Your task to perform on an android device: turn off priority inbox in the gmail app Image 0: 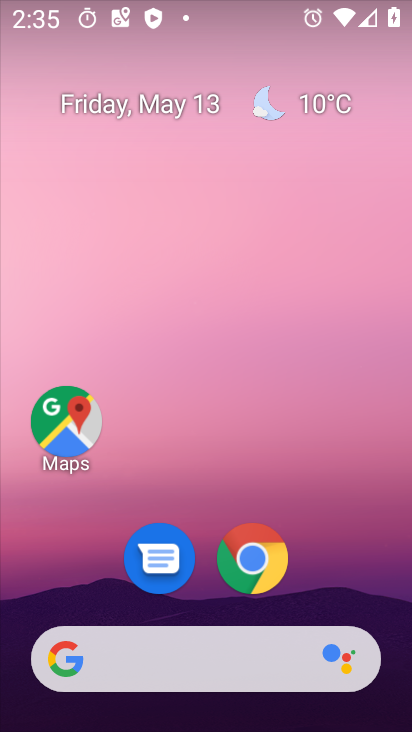
Step 0: drag from (208, 599) to (192, 227)
Your task to perform on an android device: turn off priority inbox in the gmail app Image 1: 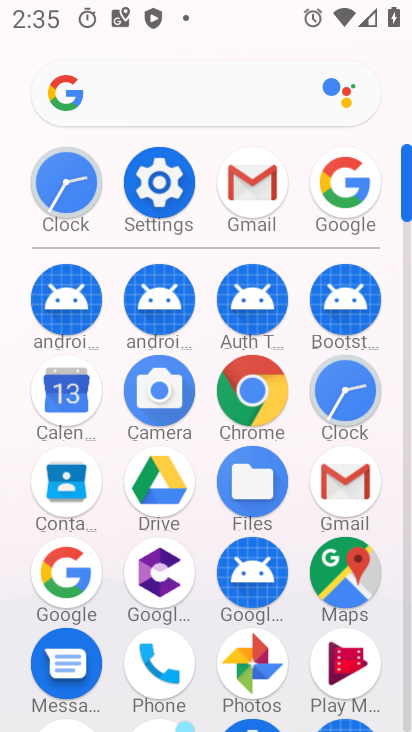
Step 1: click (251, 207)
Your task to perform on an android device: turn off priority inbox in the gmail app Image 2: 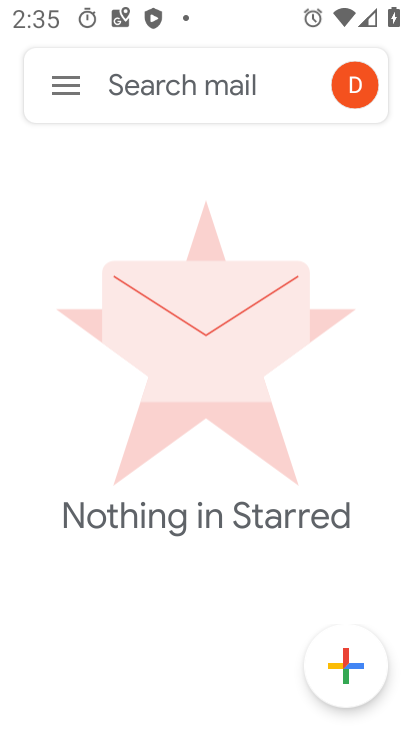
Step 2: click (69, 98)
Your task to perform on an android device: turn off priority inbox in the gmail app Image 3: 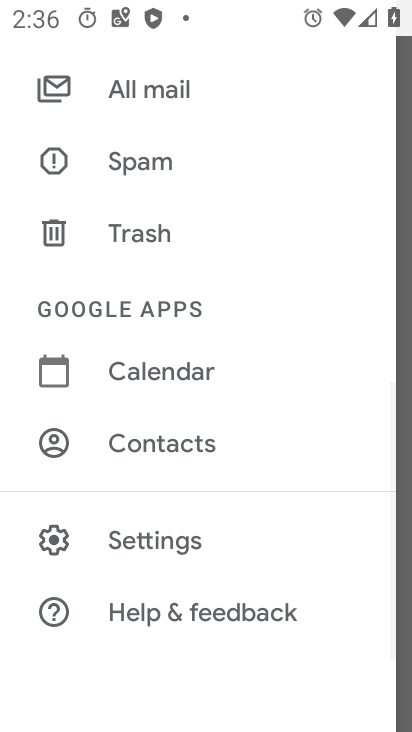
Step 3: click (133, 522)
Your task to perform on an android device: turn off priority inbox in the gmail app Image 4: 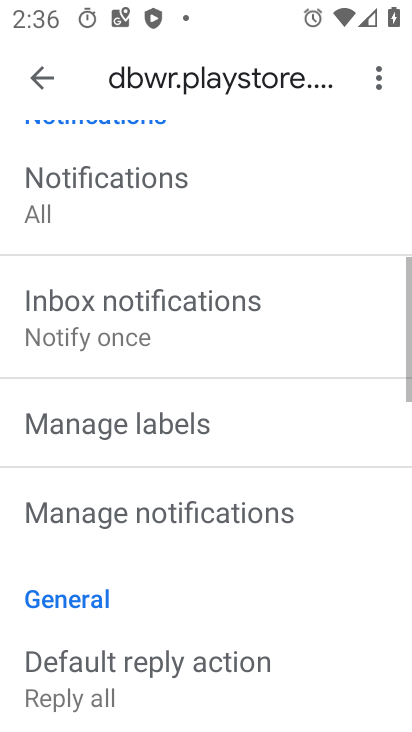
Step 4: drag from (186, 590) to (211, 332)
Your task to perform on an android device: turn off priority inbox in the gmail app Image 5: 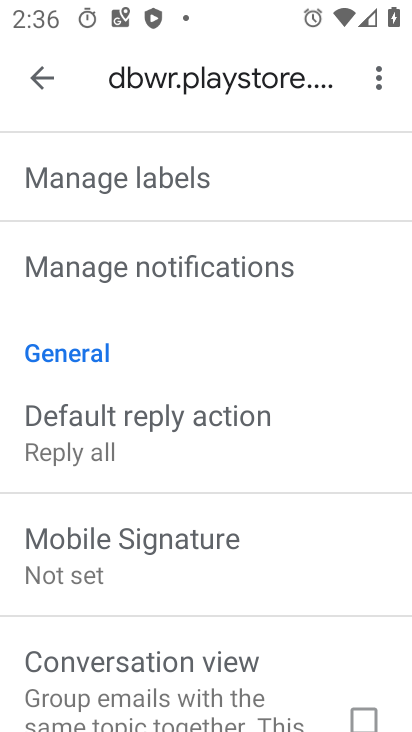
Step 5: drag from (254, 227) to (235, 528)
Your task to perform on an android device: turn off priority inbox in the gmail app Image 6: 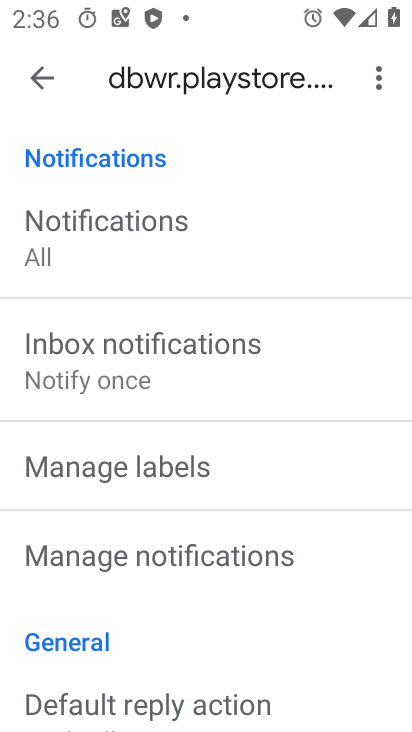
Step 6: drag from (168, 266) to (194, 569)
Your task to perform on an android device: turn off priority inbox in the gmail app Image 7: 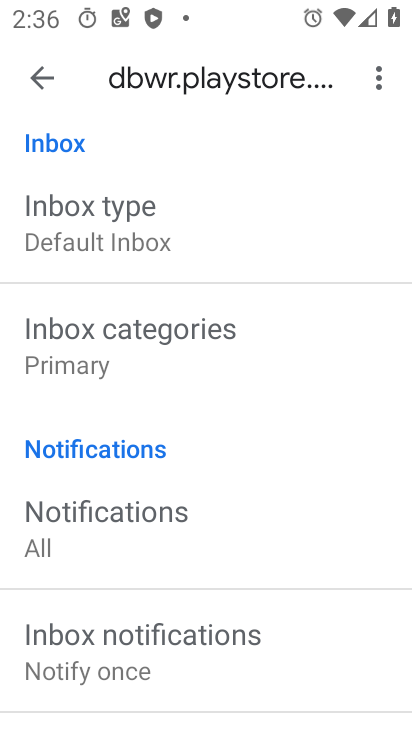
Step 7: drag from (177, 259) to (206, 514)
Your task to perform on an android device: turn off priority inbox in the gmail app Image 8: 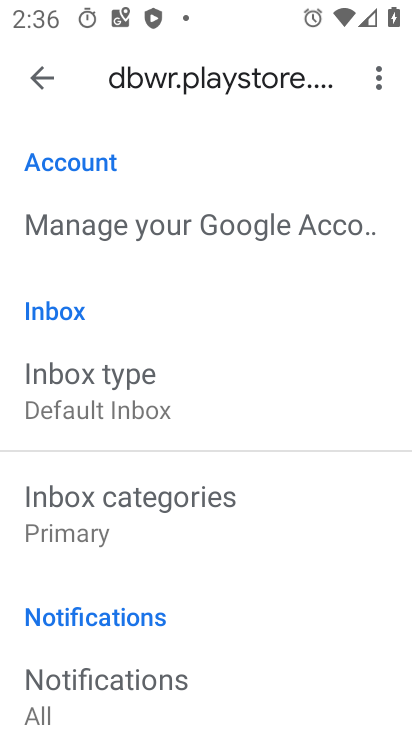
Step 8: click (164, 394)
Your task to perform on an android device: turn off priority inbox in the gmail app Image 9: 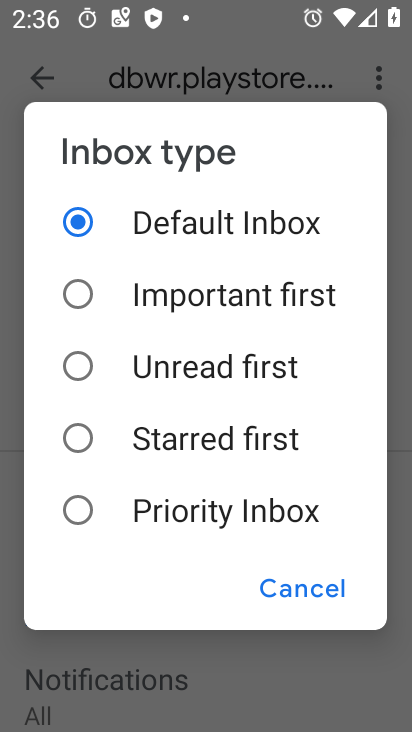
Step 9: task complete